Your task to perform on an android device: turn off airplane mode Image 0: 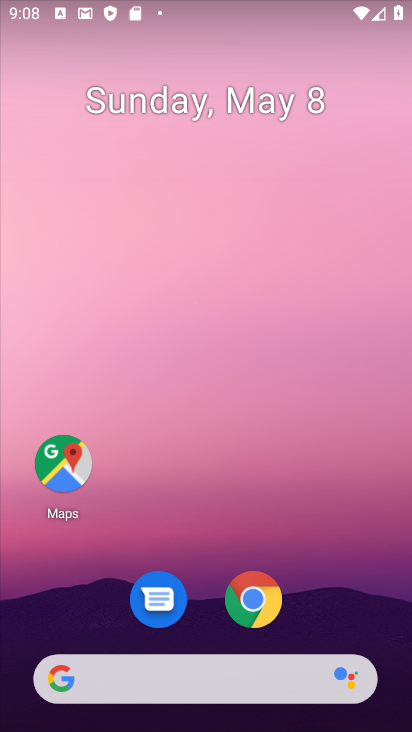
Step 0: drag from (265, 670) to (210, 155)
Your task to perform on an android device: turn off airplane mode Image 1: 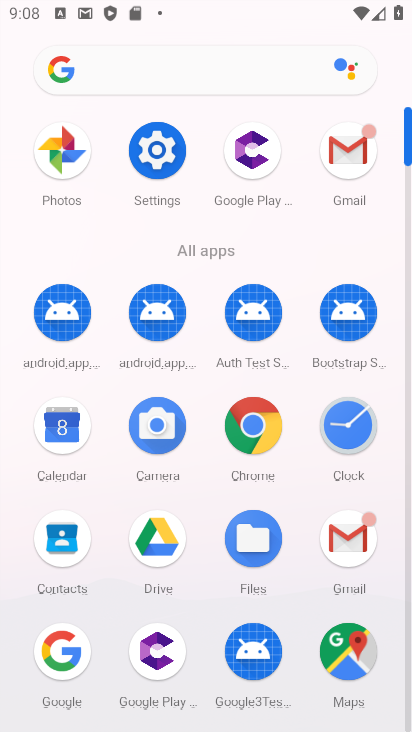
Step 1: click (166, 148)
Your task to perform on an android device: turn off airplane mode Image 2: 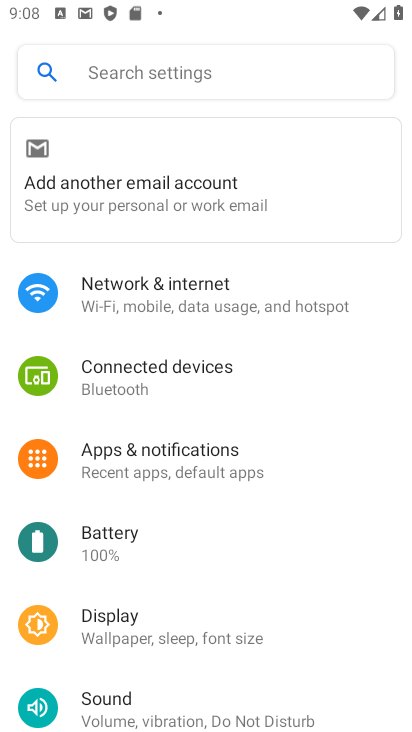
Step 2: click (173, 285)
Your task to perform on an android device: turn off airplane mode Image 3: 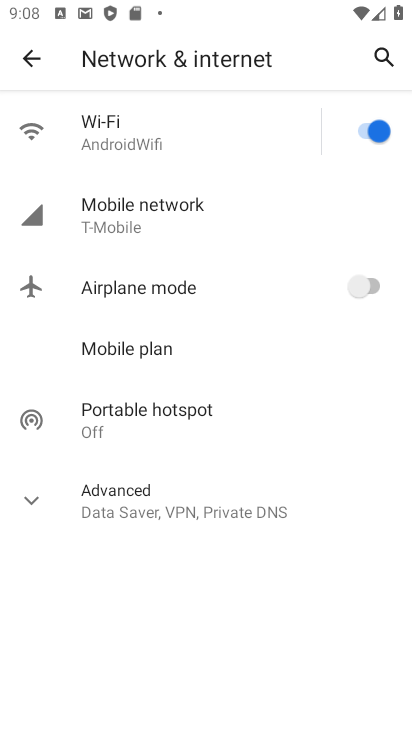
Step 3: task complete